Your task to perform on an android device: check google app version Image 0: 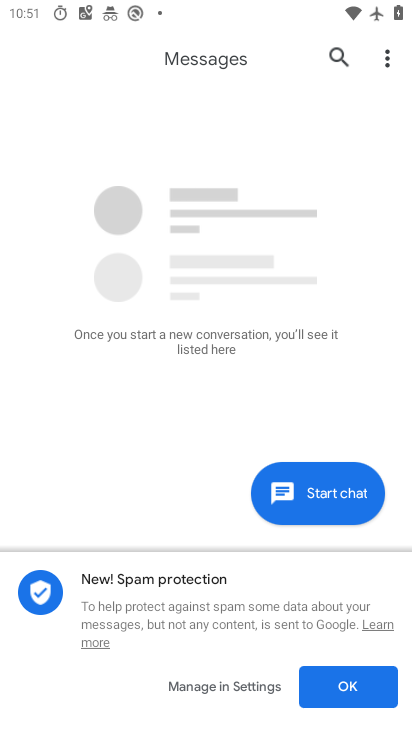
Step 0: drag from (252, 511) to (205, 104)
Your task to perform on an android device: check google app version Image 1: 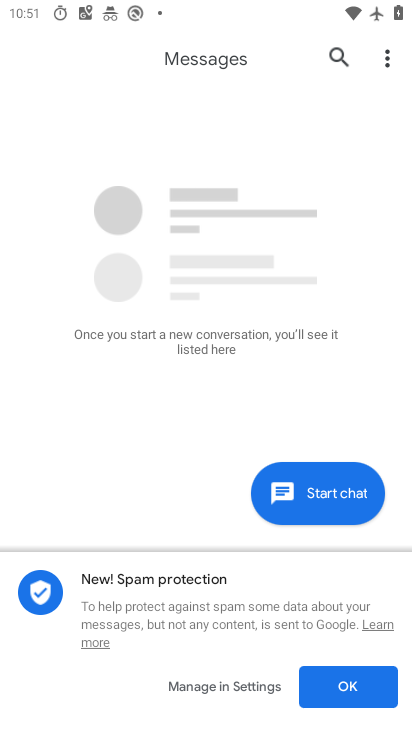
Step 1: drag from (268, 449) to (232, 34)
Your task to perform on an android device: check google app version Image 2: 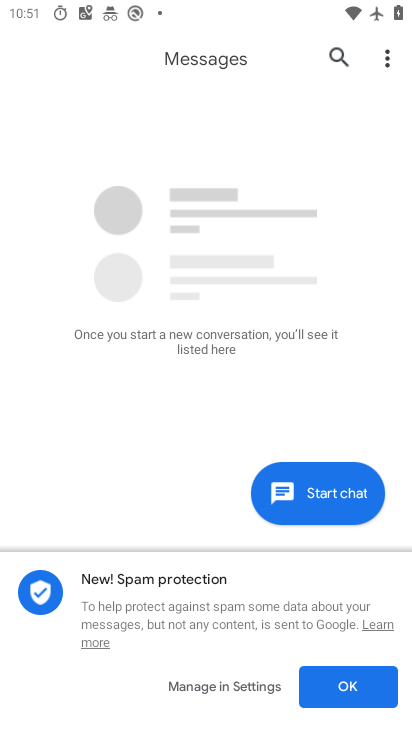
Step 2: drag from (294, 477) to (346, 74)
Your task to perform on an android device: check google app version Image 3: 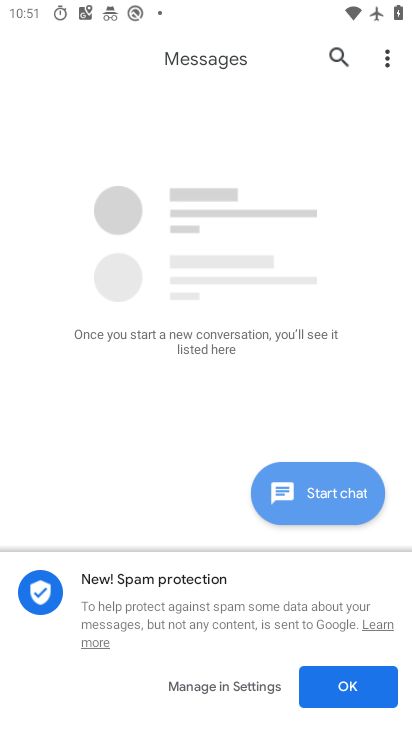
Step 3: press back button
Your task to perform on an android device: check google app version Image 4: 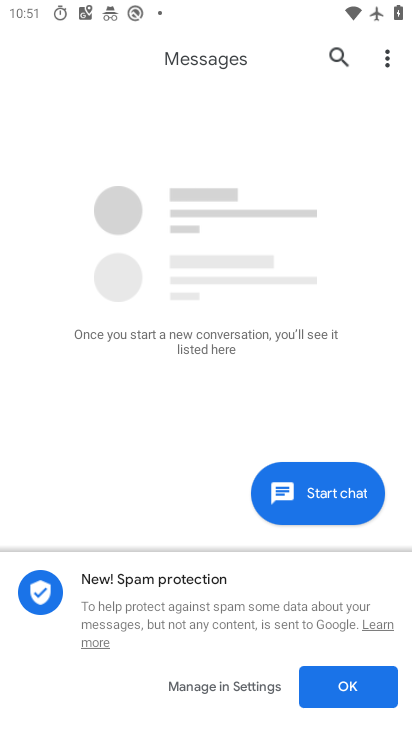
Step 4: press home button
Your task to perform on an android device: check google app version Image 5: 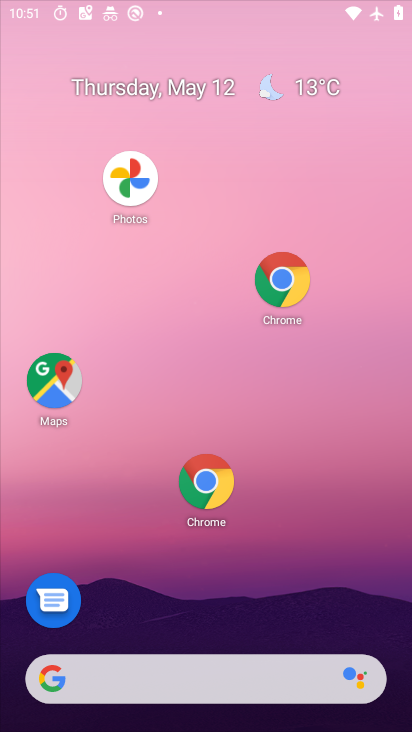
Step 5: press back button
Your task to perform on an android device: check google app version Image 6: 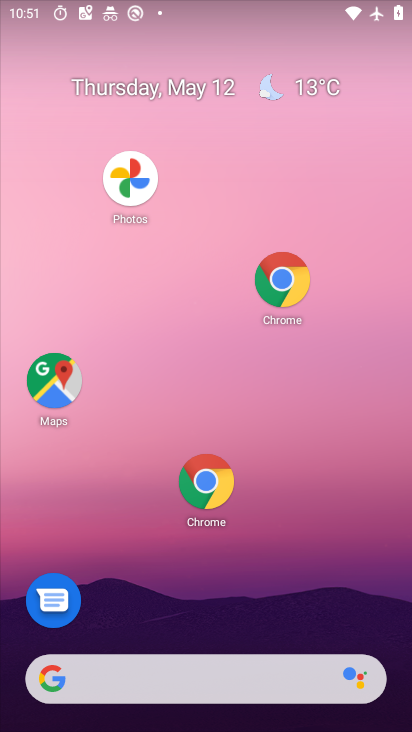
Step 6: drag from (339, 577) to (196, 223)
Your task to perform on an android device: check google app version Image 7: 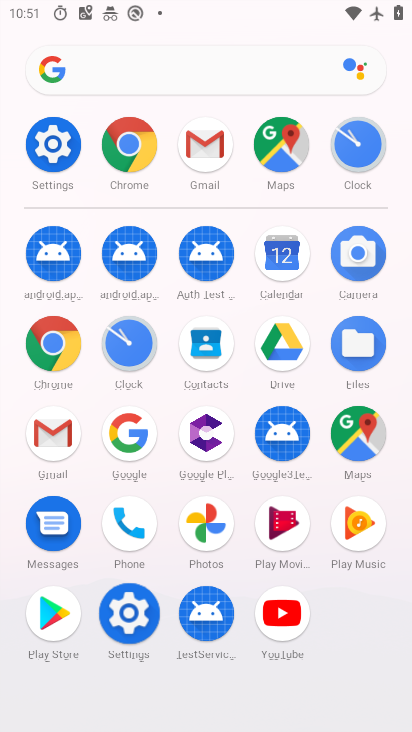
Step 7: click (130, 431)
Your task to perform on an android device: check google app version Image 8: 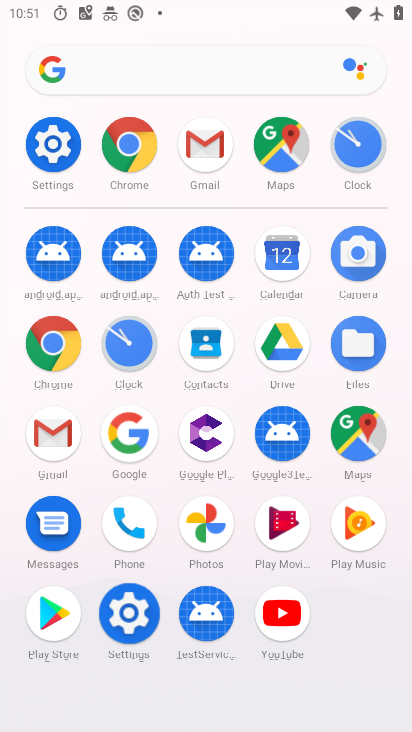
Step 8: click (130, 431)
Your task to perform on an android device: check google app version Image 9: 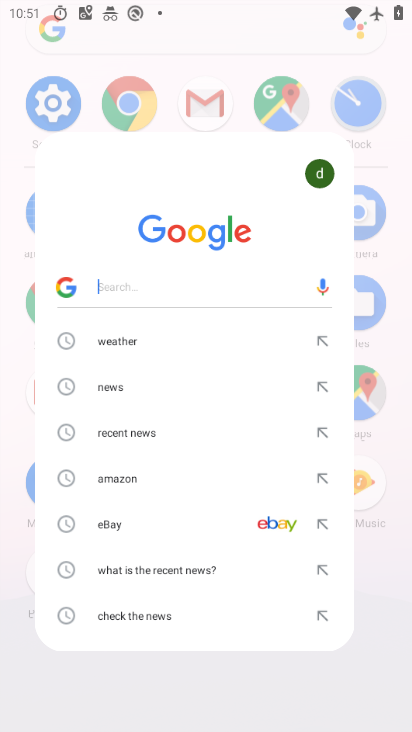
Step 9: click (130, 430)
Your task to perform on an android device: check google app version Image 10: 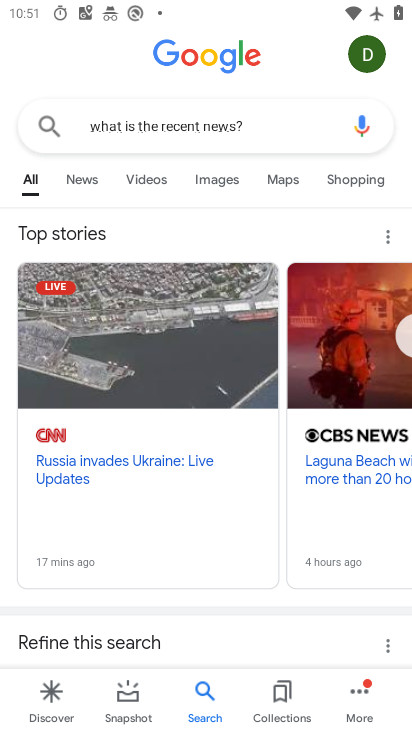
Step 10: click (348, 687)
Your task to perform on an android device: check google app version Image 11: 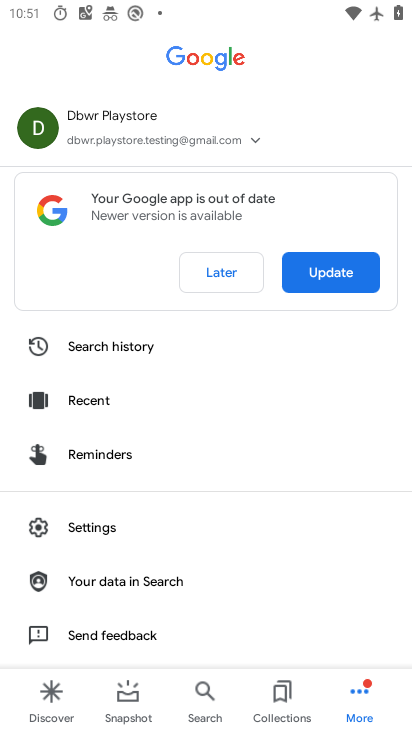
Step 11: click (359, 685)
Your task to perform on an android device: check google app version Image 12: 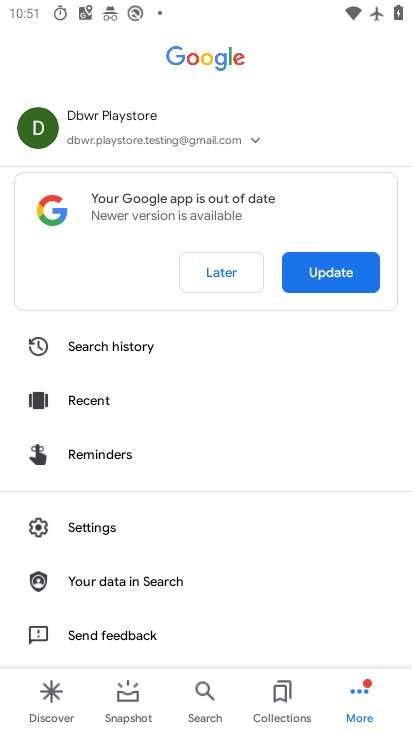
Step 12: click (346, 691)
Your task to perform on an android device: check google app version Image 13: 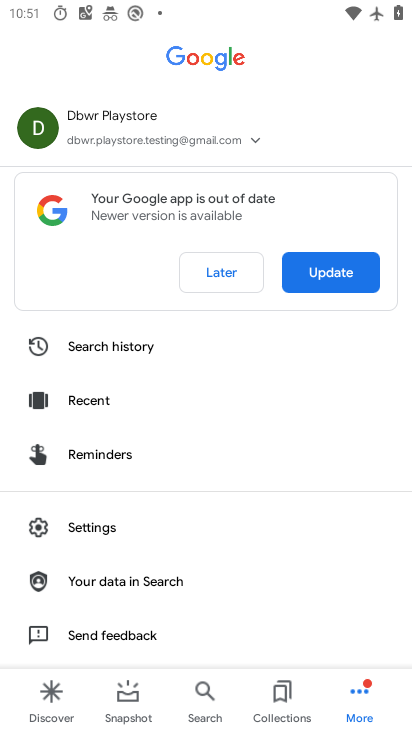
Step 13: click (349, 691)
Your task to perform on an android device: check google app version Image 14: 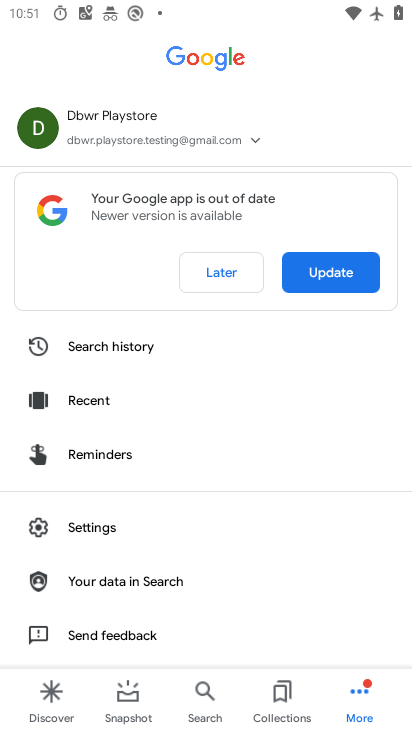
Step 14: click (350, 690)
Your task to perform on an android device: check google app version Image 15: 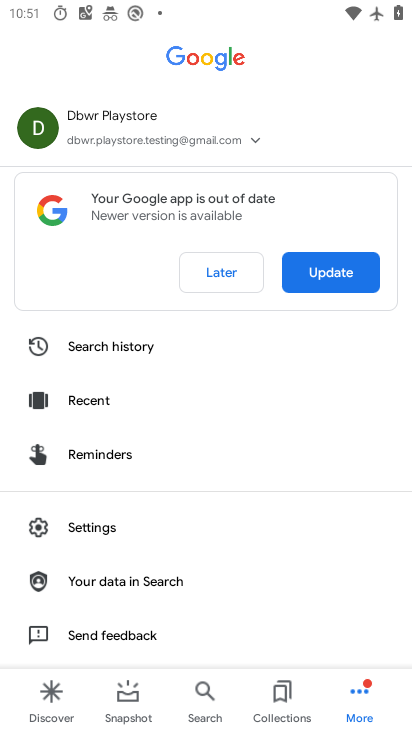
Step 15: click (366, 693)
Your task to perform on an android device: check google app version Image 16: 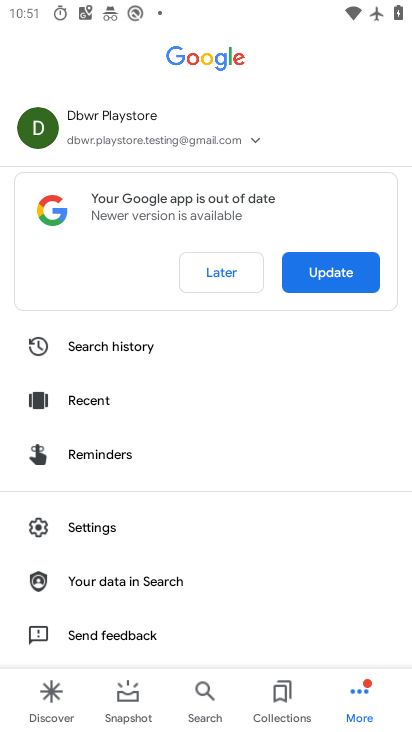
Step 16: click (366, 693)
Your task to perform on an android device: check google app version Image 17: 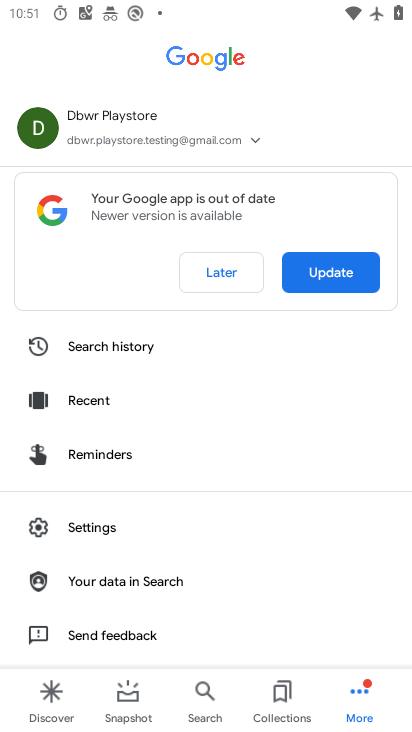
Step 17: click (366, 693)
Your task to perform on an android device: check google app version Image 18: 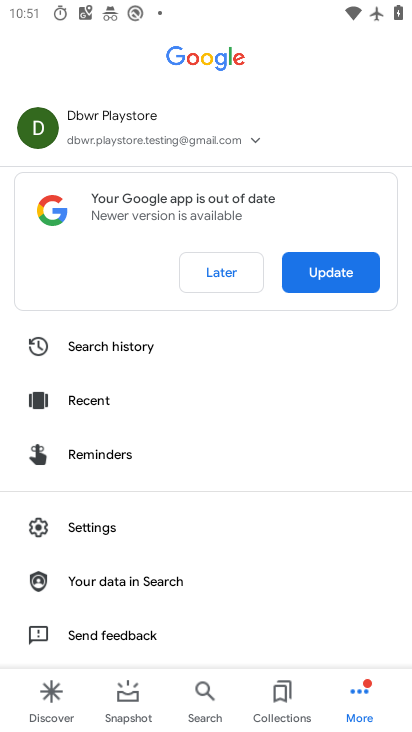
Step 18: click (321, 699)
Your task to perform on an android device: check google app version Image 19: 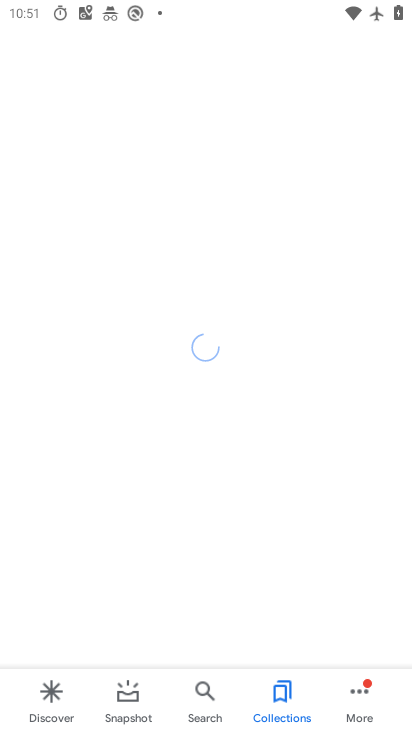
Step 19: click (365, 695)
Your task to perform on an android device: check google app version Image 20: 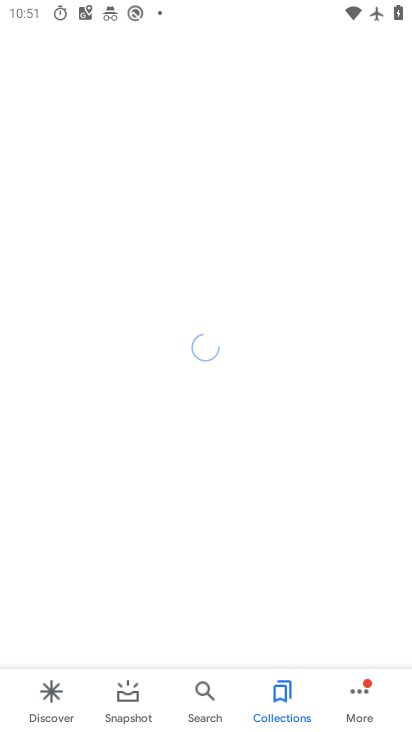
Step 20: click (358, 686)
Your task to perform on an android device: check google app version Image 21: 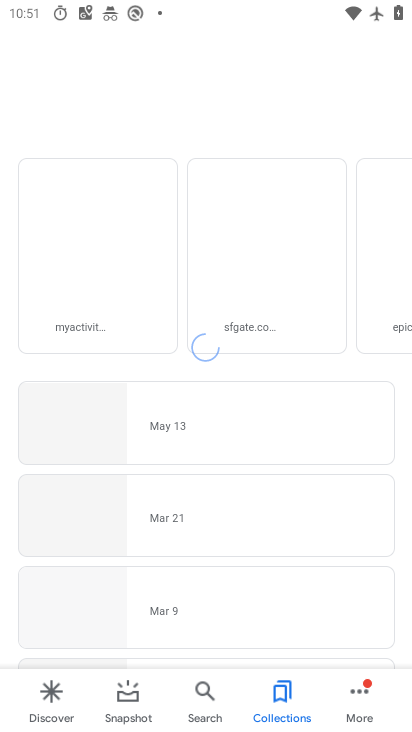
Step 21: click (358, 686)
Your task to perform on an android device: check google app version Image 22: 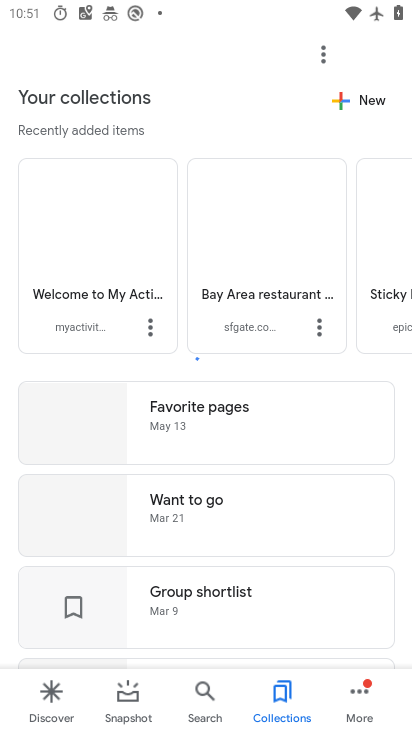
Step 22: click (367, 676)
Your task to perform on an android device: check google app version Image 23: 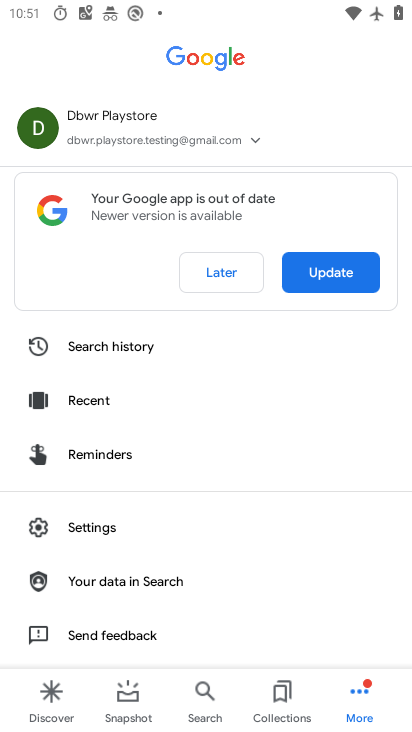
Step 23: click (368, 688)
Your task to perform on an android device: check google app version Image 24: 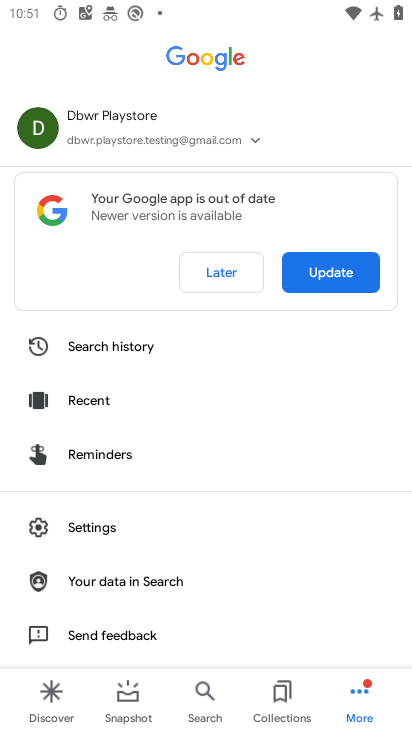
Step 24: click (365, 687)
Your task to perform on an android device: check google app version Image 25: 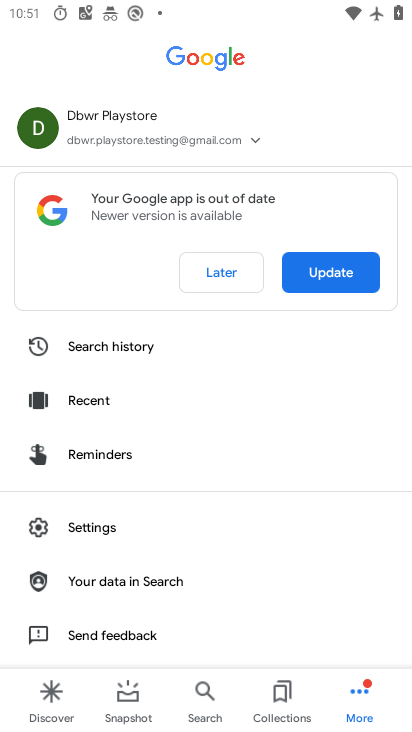
Step 25: click (365, 681)
Your task to perform on an android device: check google app version Image 26: 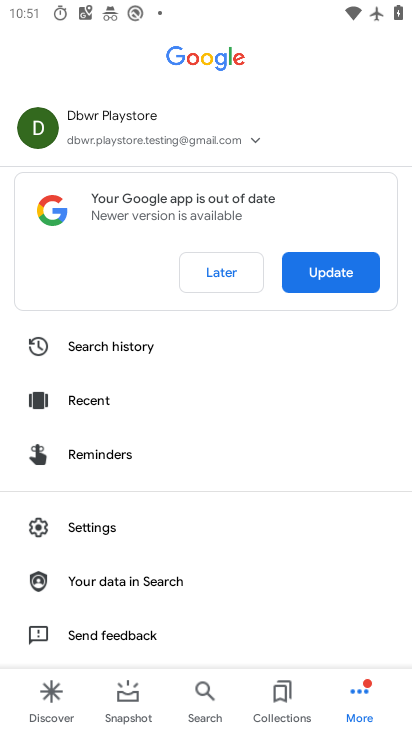
Step 26: click (364, 680)
Your task to perform on an android device: check google app version Image 27: 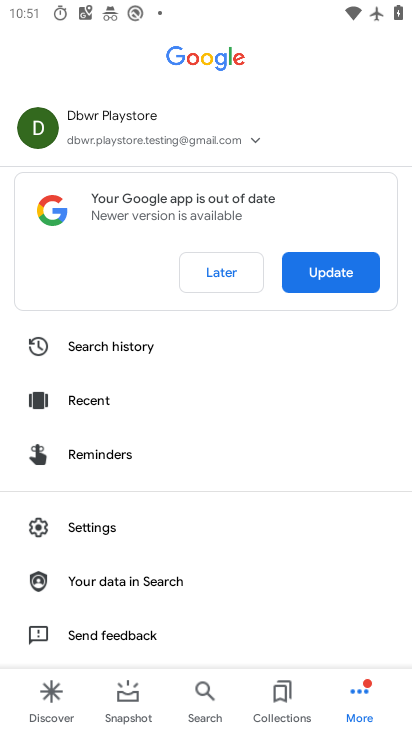
Step 27: click (356, 693)
Your task to perform on an android device: check google app version Image 28: 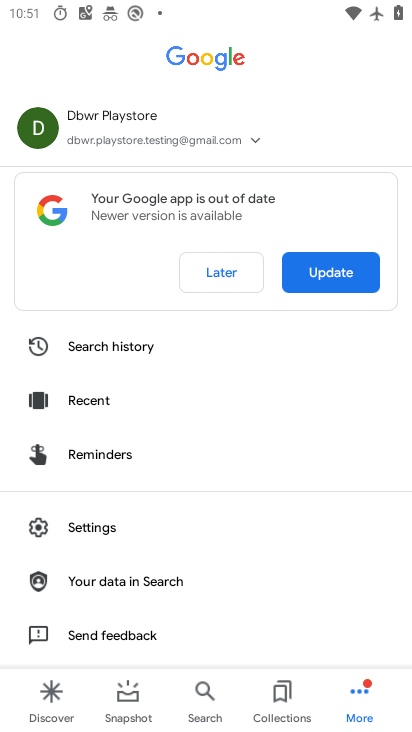
Step 28: click (356, 693)
Your task to perform on an android device: check google app version Image 29: 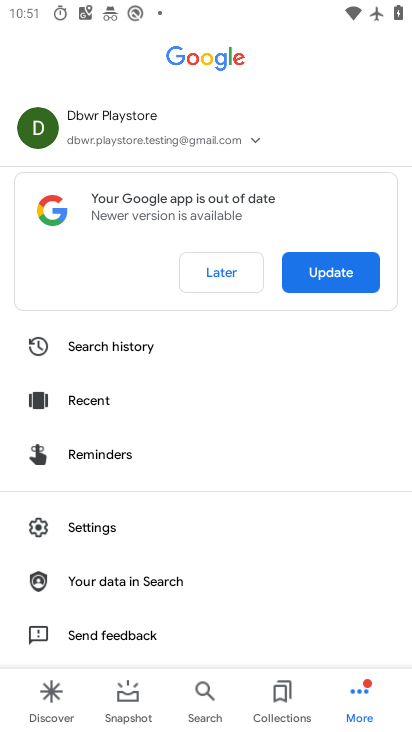
Step 29: drag from (260, 474) to (86, 41)
Your task to perform on an android device: check google app version Image 30: 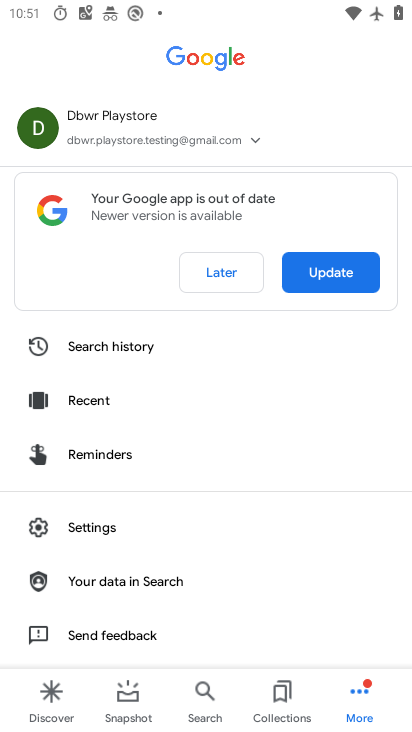
Step 30: click (95, 531)
Your task to perform on an android device: check google app version Image 31: 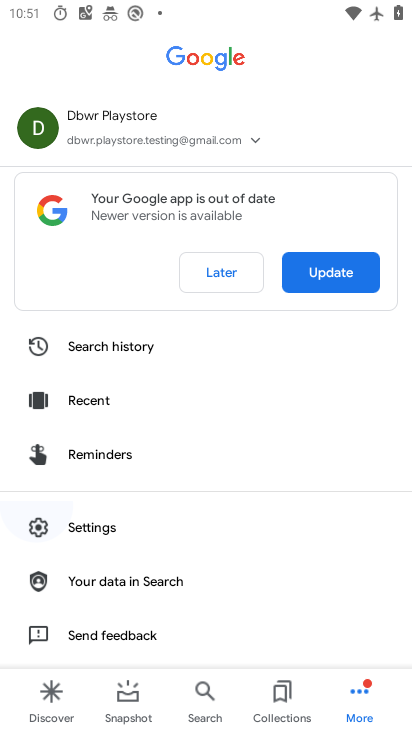
Step 31: click (95, 531)
Your task to perform on an android device: check google app version Image 32: 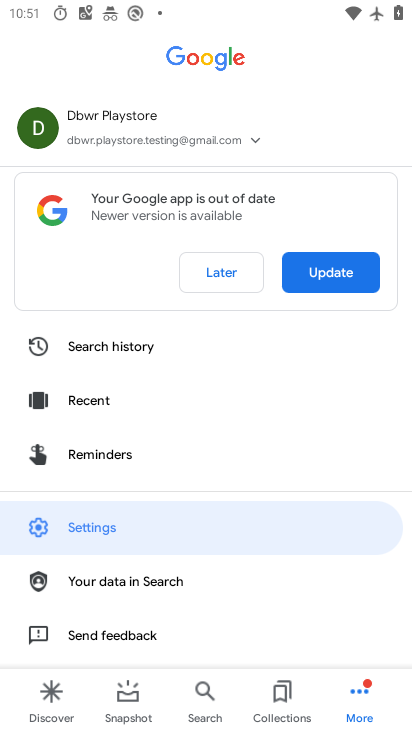
Step 32: click (95, 531)
Your task to perform on an android device: check google app version Image 33: 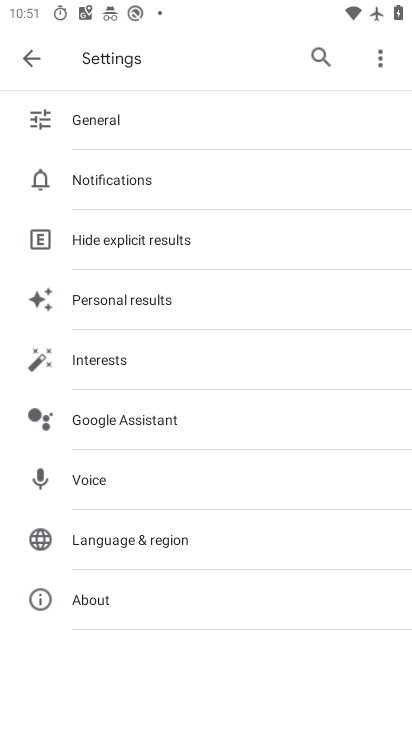
Step 33: click (97, 531)
Your task to perform on an android device: check google app version Image 34: 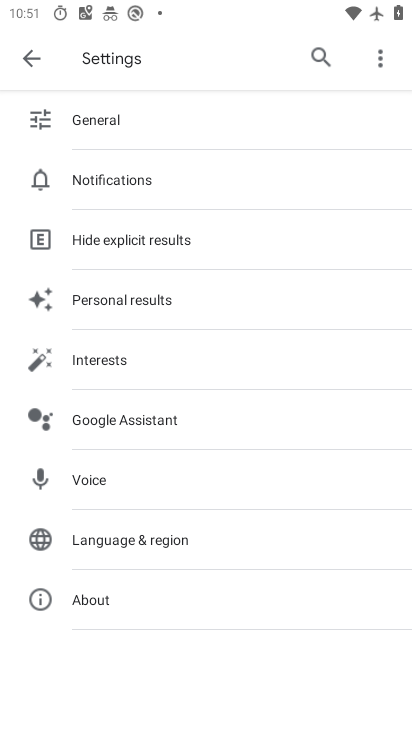
Step 34: click (98, 531)
Your task to perform on an android device: check google app version Image 35: 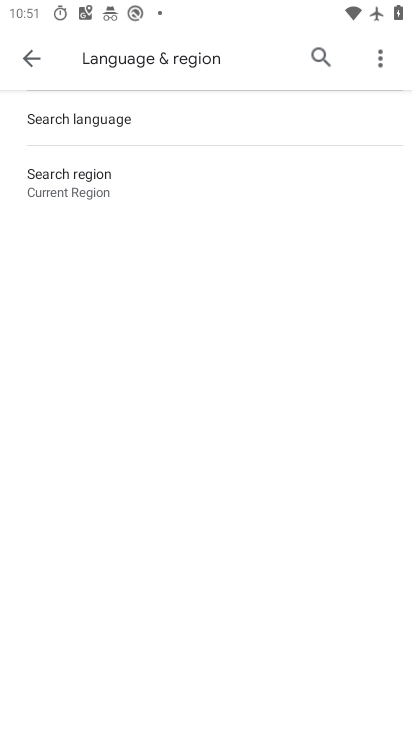
Step 35: click (28, 47)
Your task to perform on an android device: check google app version Image 36: 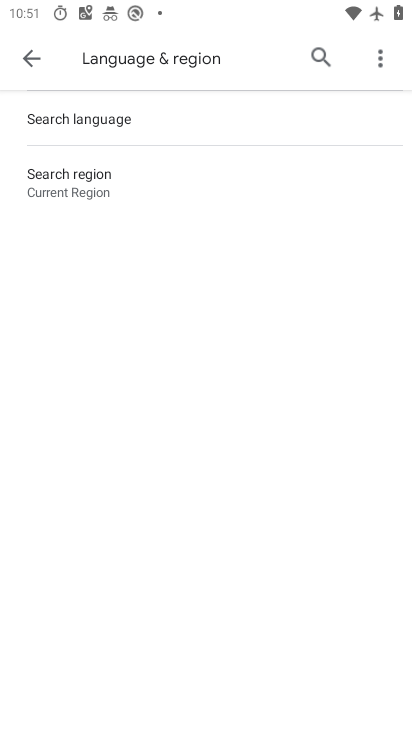
Step 36: click (30, 62)
Your task to perform on an android device: check google app version Image 37: 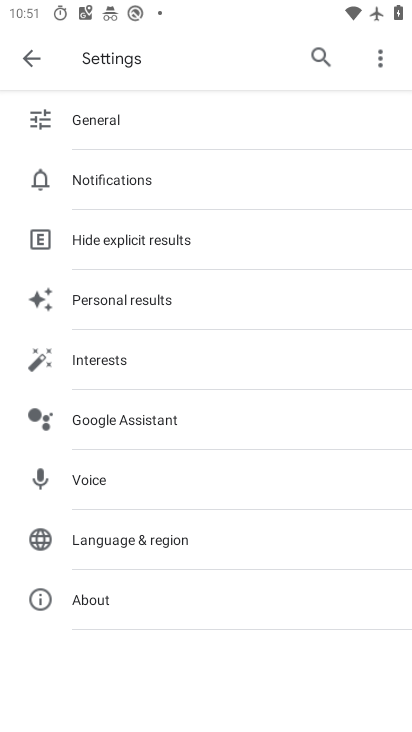
Step 37: click (30, 69)
Your task to perform on an android device: check google app version Image 38: 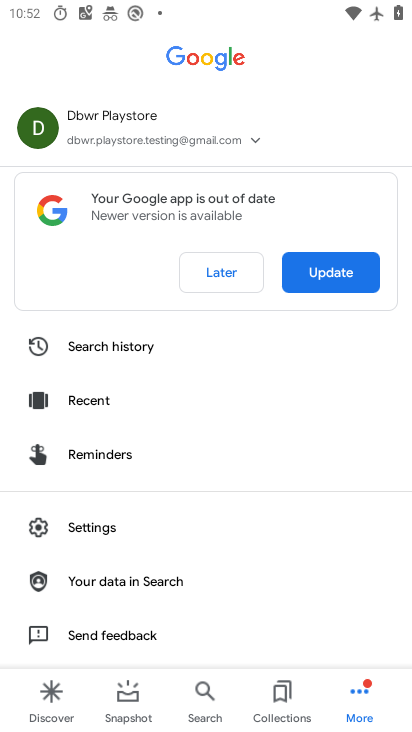
Step 38: click (107, 528)
Your task to perform on an android device: check google app version Image 39: 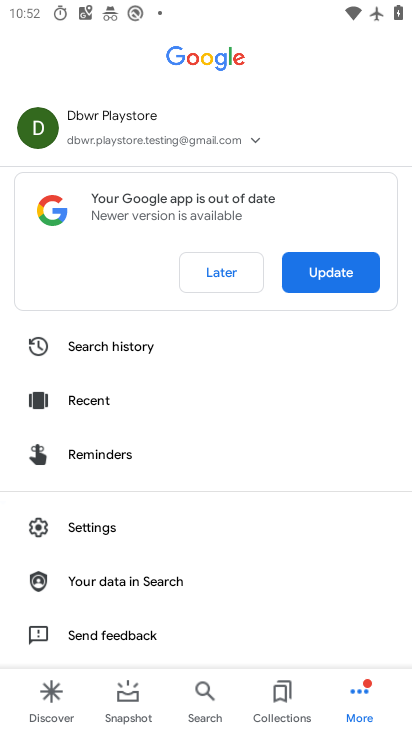
Step 39: click (104, 522)
Your task to perform on an android device: check google app version Image 40: 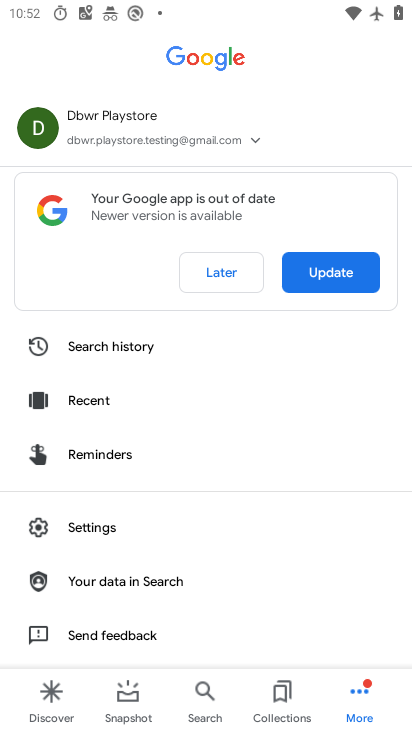
Step 40: click (104, 522)
Your task to perform on an android device: check google app version Image 41: 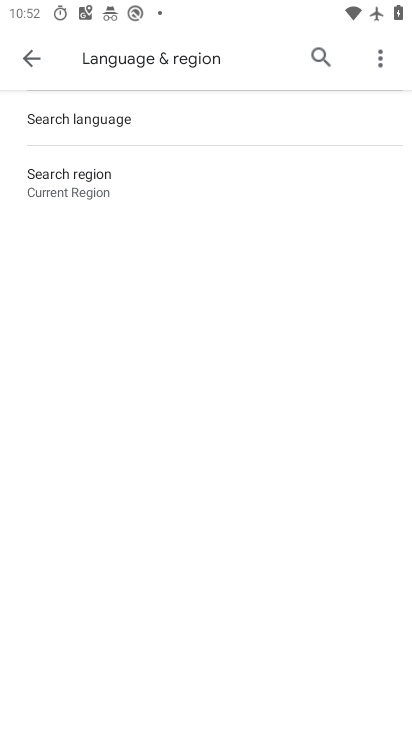
Step 41: click (32, 57)
Your task to perform on an android device: check google app version Image 42: 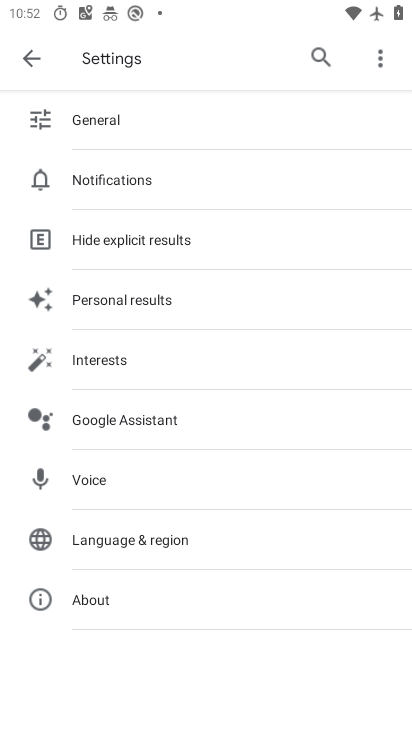
Step 42: click (108, 593)
Your task to perform on an android device: check google app version Image 43: 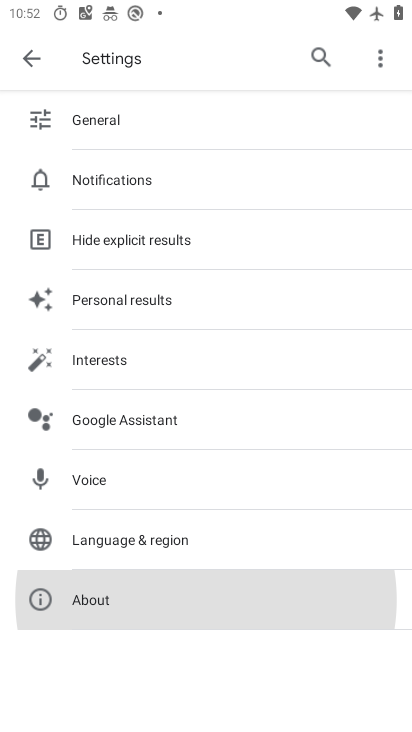
Step 43: click (107, 592)
Your task to perform on an android device: check google app version Image 44: 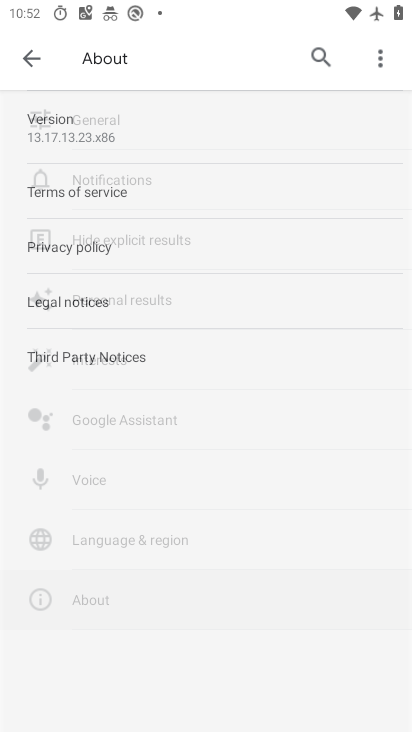
Step 44: click (107, 592)
Your task to perform on an android device: check google app version Image 45: 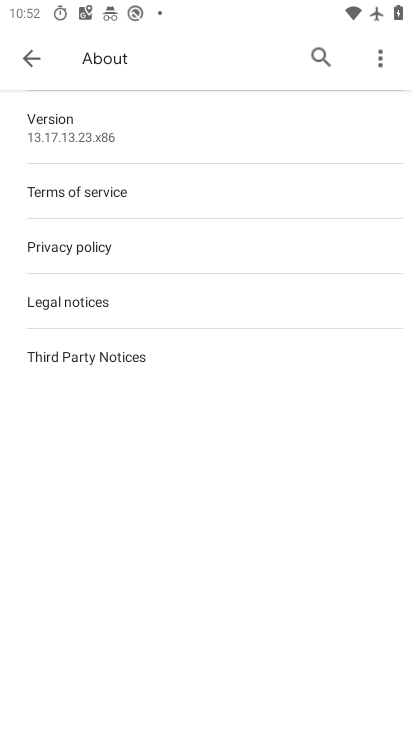
Step 45: task complete